Your task to perform on an android device: change notifications settings Image 0: 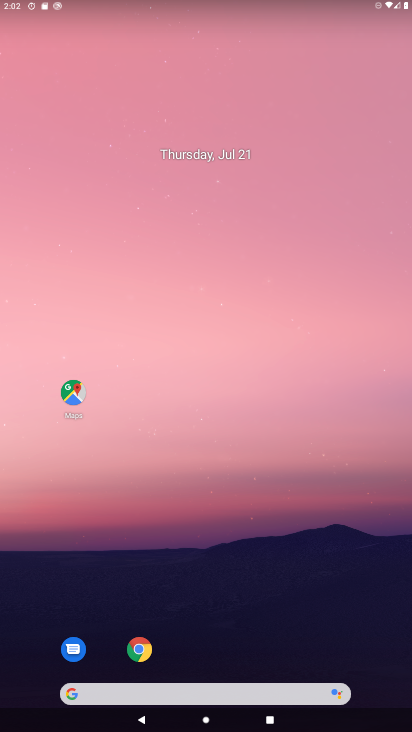
Step 0: drag from (291, 573) to (224, 31)
Your task to perform on an android device: change notifications settings Image 1: 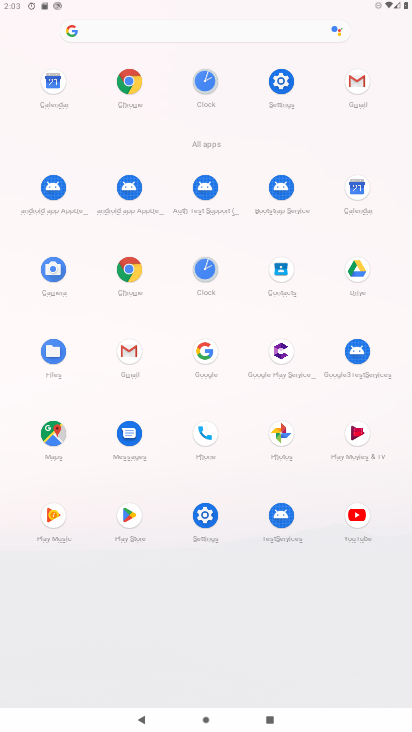
Step 1: click (277, 96)
Your task to perform on an android device: change notifications settings Image 2: 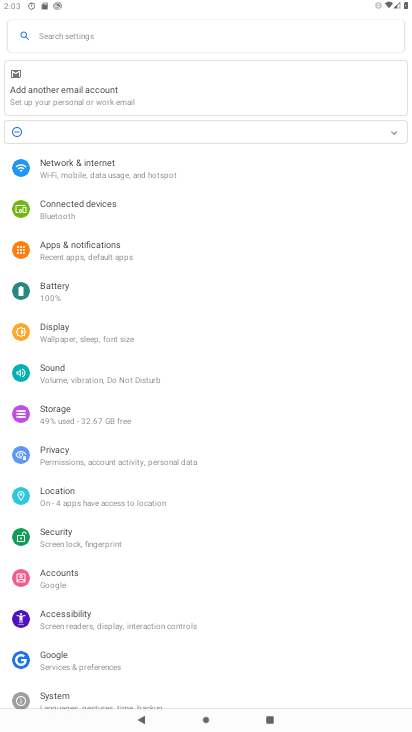
Step 2: click (107, 250)
Your task to perform on an android device: change notifications settings Image 3: 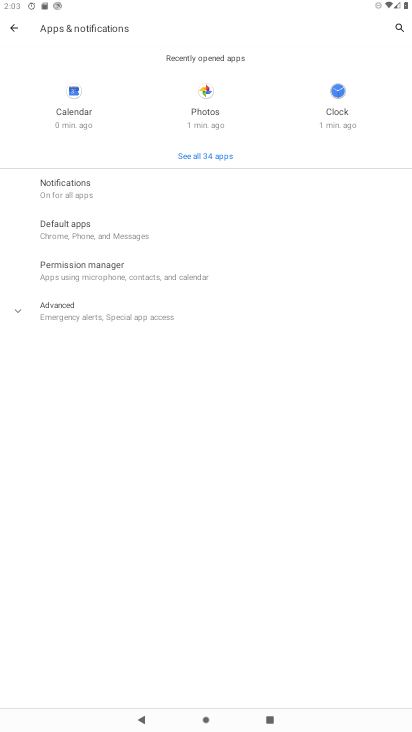
Step 3: click (55, 184)
Your task to perform on an android device: change notifications settings Image 4: 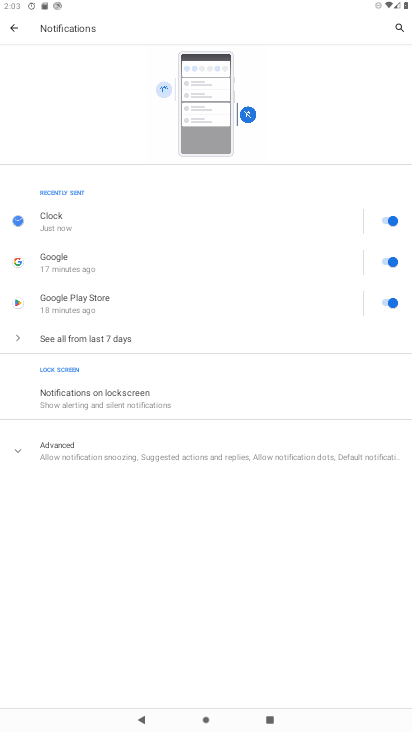
Step 4: click (98, 339)
Your task to perform on an android device: change notifications settings Image 5: 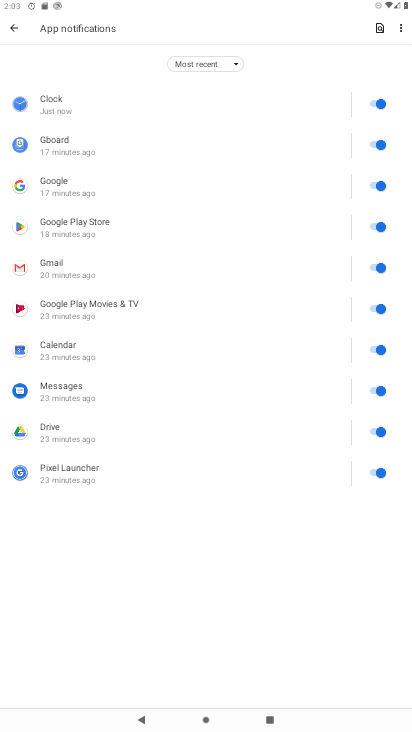
Step 5: click (376, 101)
Your task to perform on an android device: change notifications settings Image 6: 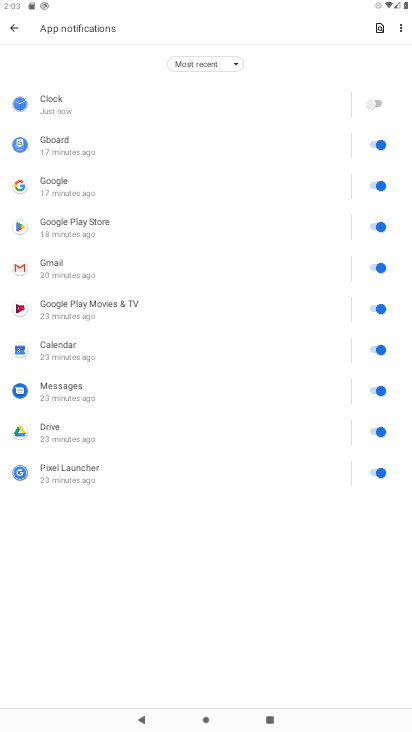
Step 6: task complete